Your task to perform on an android device: Go to location settings Image 0: 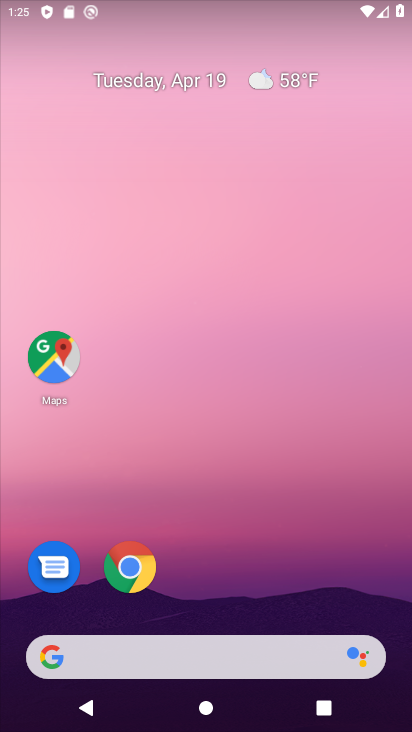
Step 0: drag from (250, 591) to (219, 124)
Your task to perform on an android device: Go to location settings Image 1: 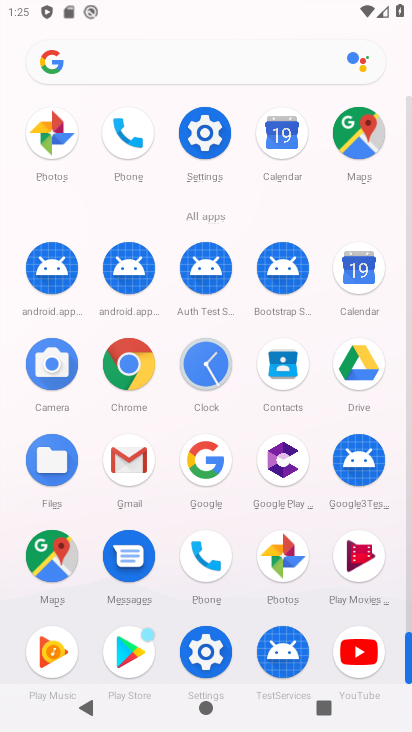
Step 1: click (210, 136)
Your task to perform on an android device: Go to location settings Image 2: 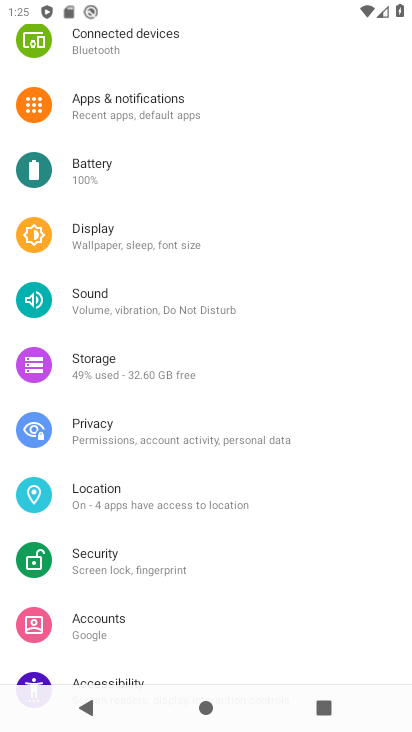
Step 2: click (195, 508)
Your task to perform on an android device: Go to location settings Image 3: 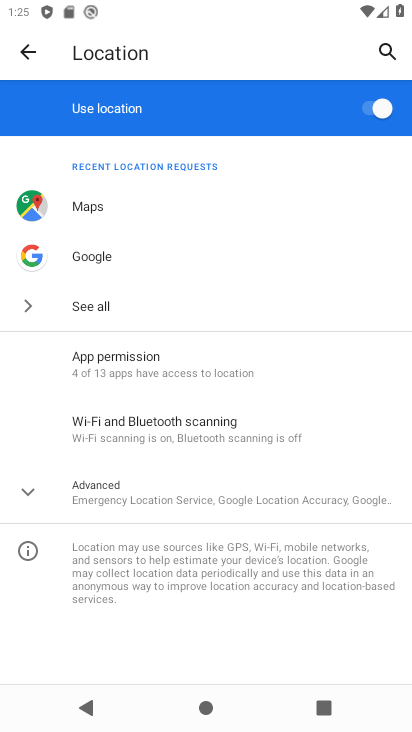
Step 3: task complete